Your task to perform on an android device: View the shopping cart on amazon.com. Search for "dell xps" on amazon.com, select the first entry, and add it to the cart. Image 0: 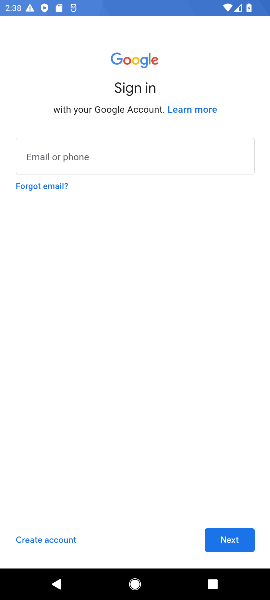
Step 0: press home button
Your task to perform on an android device: View the shopping cart on amazon.com. Search for "dell xps" on amazon.com, select the first entry, and add it to the cart. Image 1: 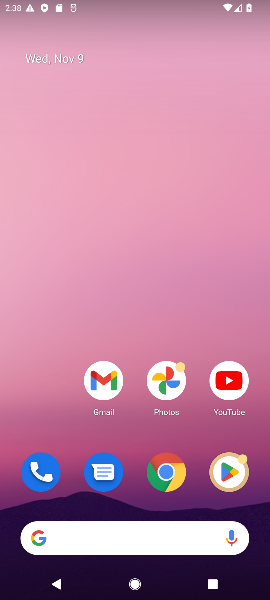
Step 1: click (116, 539)
Your task to perform on an android device: View the shopping cart on amazon.com. Search for "dell xps" on amazon.com, select the first entry, and add it to the cart. Image 2: 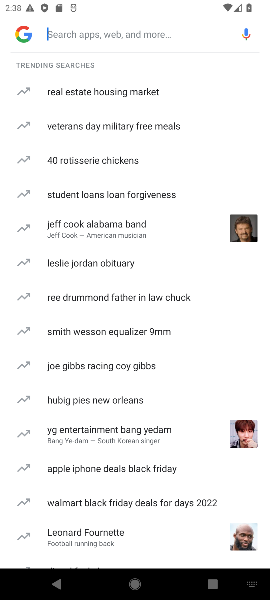
Step 2: type "amazon"
Your task to perform on an android device: View the shopping cart on amazon.com. Search for "dell xps" on amazon.com, select the first entry, and add it to the cart. Image 3: 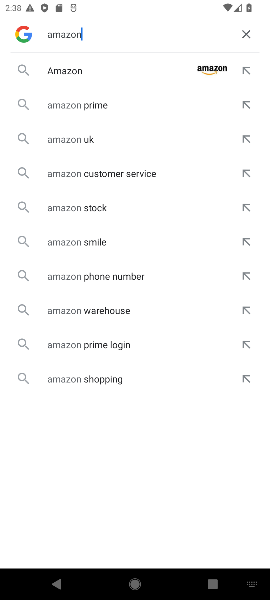
Step 3: click (64, 68)
Your task to perform on an android device: View the shopping cart on amazon.com. Search for "dell xps" on amazon.com, select the first entry, and add it to the cart. Image 4: 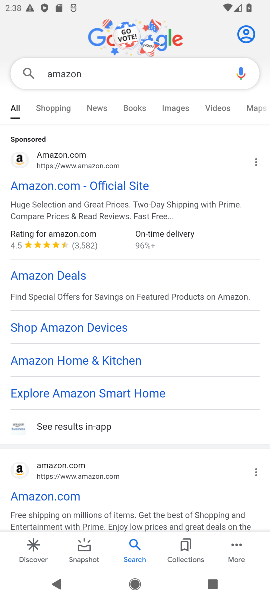
Step 4: click (41, 155)
Your task to perform on an android device: View the shopping cart on amazon.com. Search for "dell xps" on amazon.com, select the first entry, and add it to the cart. Image 5: 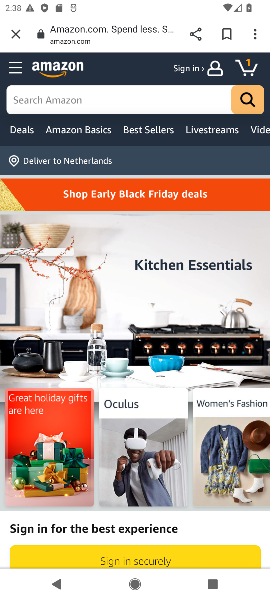
Step 5: click (72, 97)
Your task to perform on an android device: View the shopping cart on amazon.com. Search for "dell xps" on amazon.com, select the first entry, and add it to the cart. Image 6: 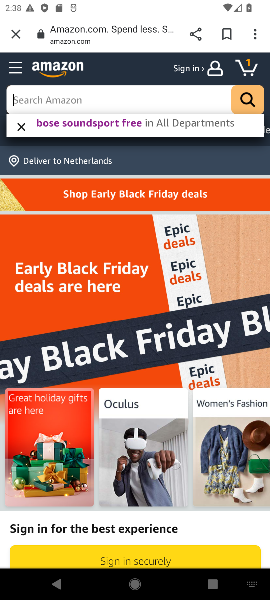
Step 6: type "dell xps"
Your task to perform on an android device: View the shopping cart on amazon.com. Search for "dell xps" on amazon.com, select the first entry, and add it to the cart. Image 7: 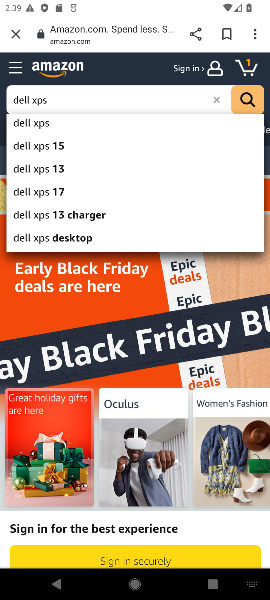
Step 7: click (244, 95)
Your task to perform on an android device: View the shopping cart on amazon.com. Search for "dell xps" on amazon.com, select the first entry, and add it to the cart. Image 8: 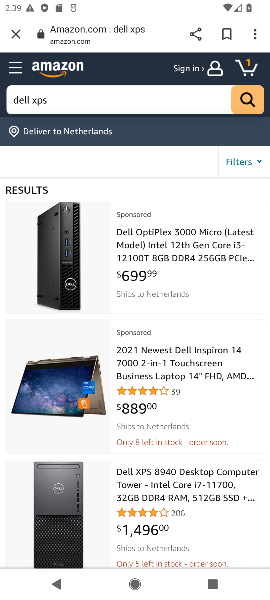
Step 8: click (143, 250)
Your task to perform on an android device: View the shopping cart on amazon.com. Search for "dell xps" on amazon.com, select the first entry, and add it to the cart. Image 9: 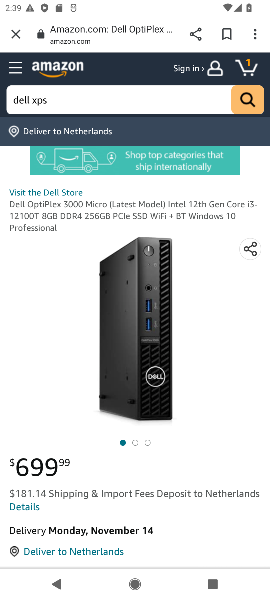
Step 9: drag from (201, 406) to (174, 246)
Your task to perform on an android device: View the shopping cart on amazon.com. Search for "dell xps" on amazon.com, select the first entry, and add it to the cart. Image 10: 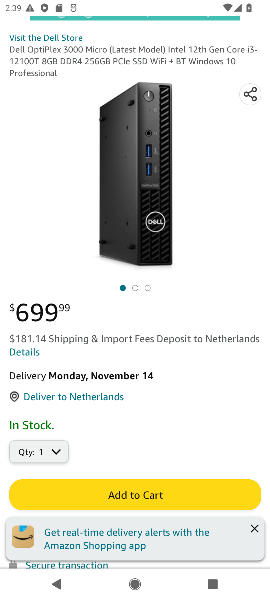
Step 10: click (132, 496)
Your task to perform on an android device: View the shopping cart on amazon.com. Search for "dell xps" on amazon.com, select the first entry, and add it to the cart. Image 11: 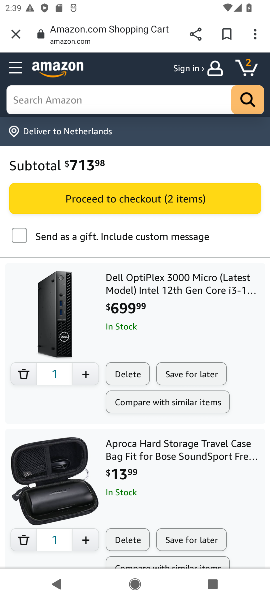
Step 11: task complete